Your task to perform on an android device: check android version Image 0: 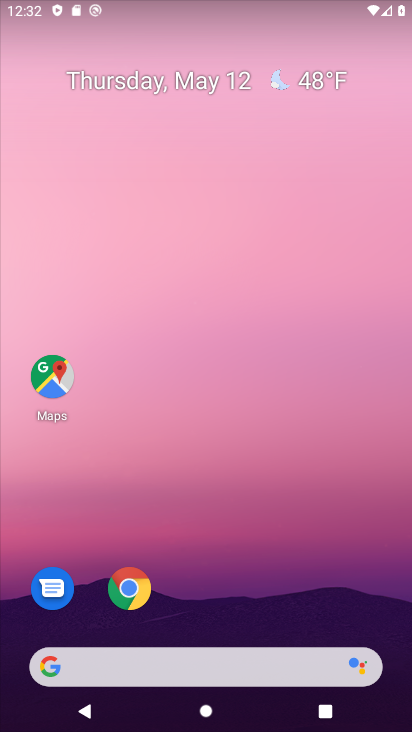
Step 0: drag from (303, 579) to (115, 2)
Your task to perform on an android device: check android version Image 1: 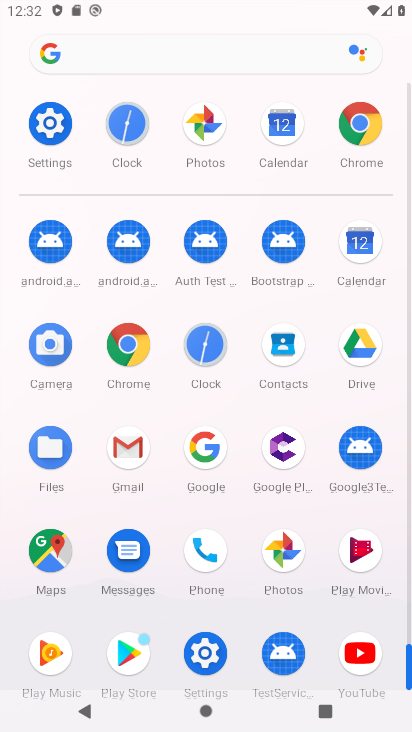
Step 1: click (50, 177)
Your task to perform on an android device: check android version Image 2: 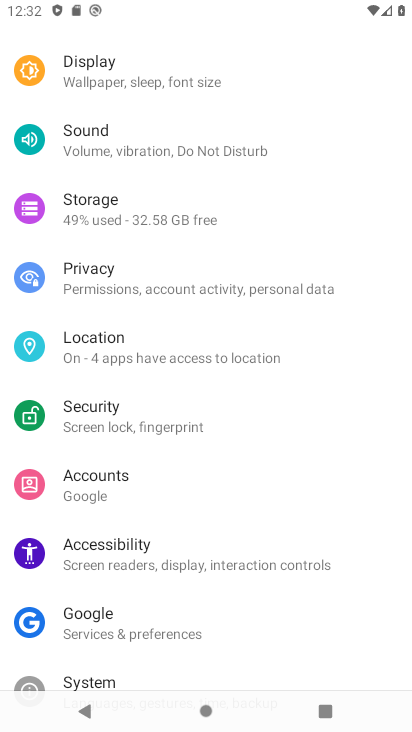
Step 2: drag from (189, 606) to (181, 258)
Your task to perform on an android device: check android version Image 3: 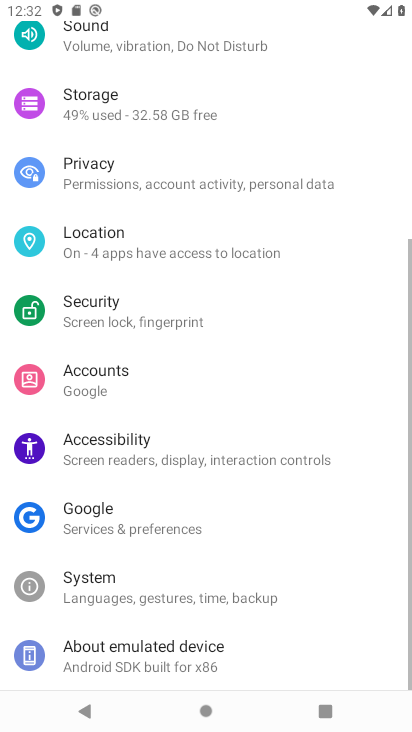
Step 3: drag from (198, 588) to (173, 223)
Your task to perform on an android device: check android version Image 4: 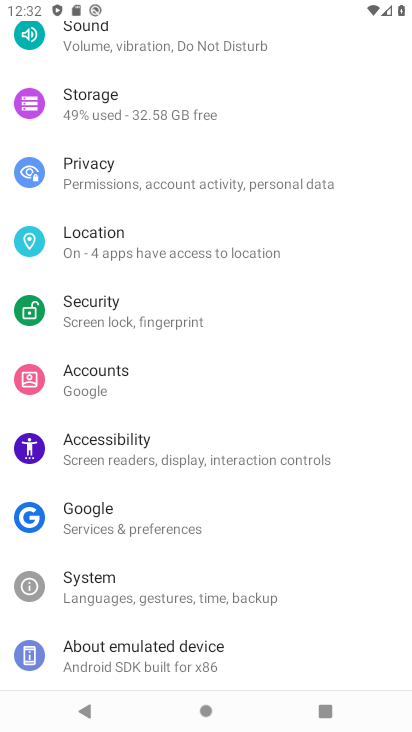
Step 4: click (136, 654)
Your task to perform on an android device: check android version Image 5: 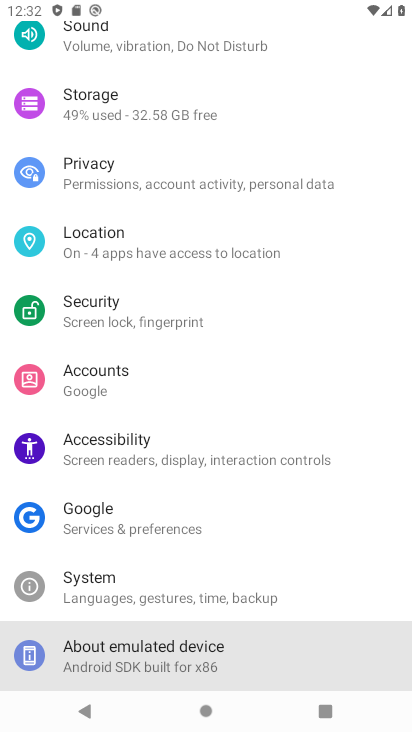
Step 5: click (138, 651)
Your task to perform on an android device: check android version Image 6: 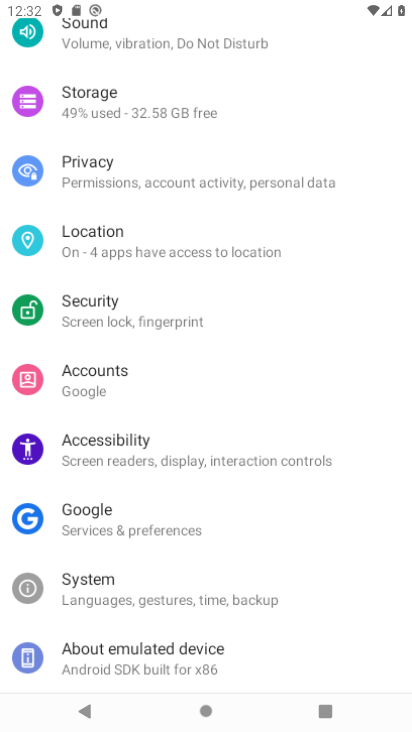
Step 6: click (138, 648)
Your task to perform on an android device: check android version Image 7: 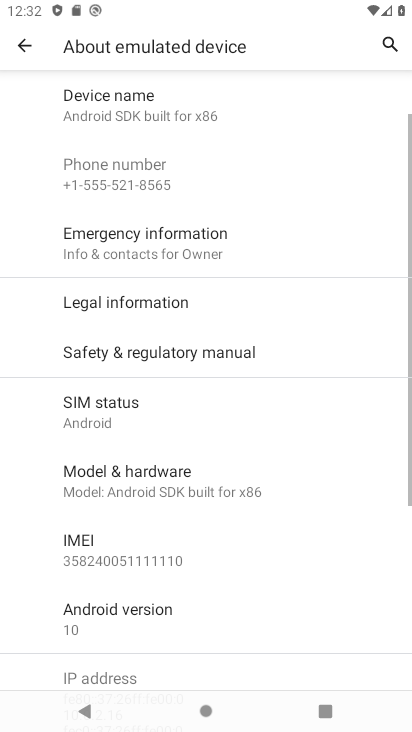
Step 7: click (139, 637)
Your task to perform on an android device: check android version Image 8: 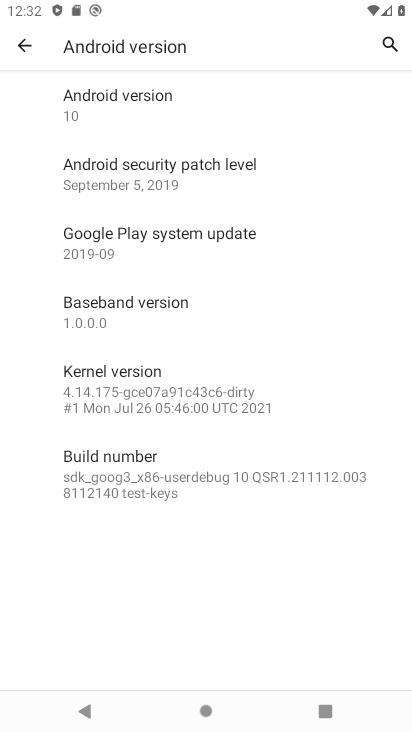
Step 8: task complete